Your task to perform on an android device: Open Google Maps Image 0: 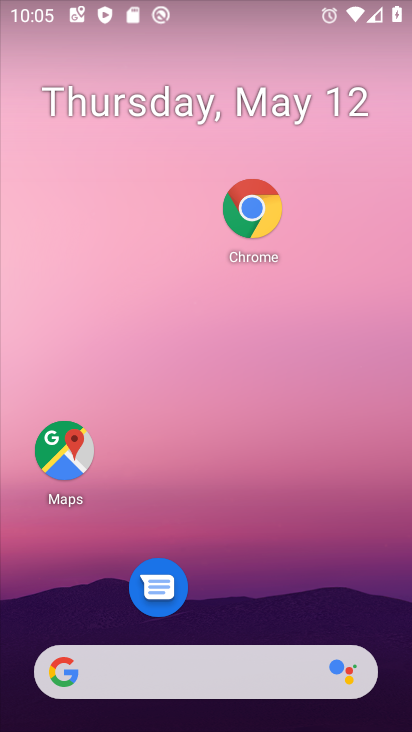
Step 0: drag from (279, 510) to (282, 328)
Your task to perform on an android device: Open Google Maps Image 1: 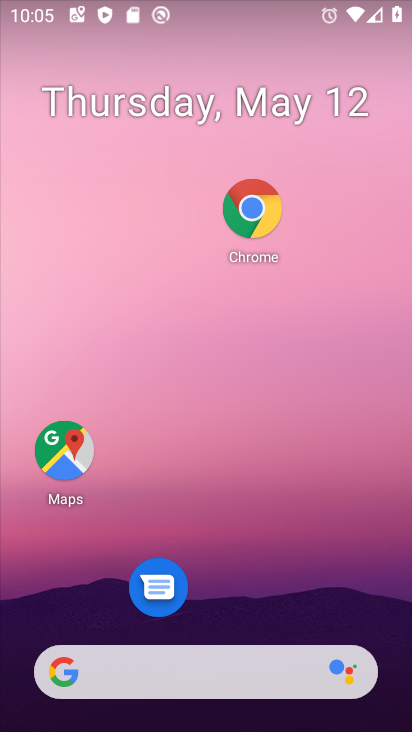
Step 1: drag from (264, 430) to (314, 155)
Your task to perform on an android device: Open Google Maps Image 2: 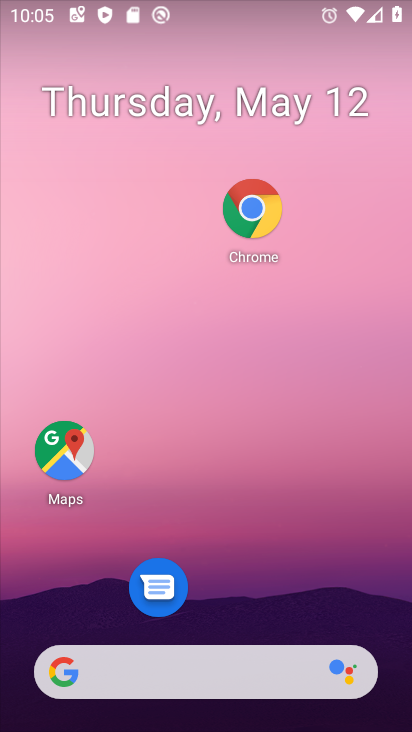
Step 2: drag from (287, 583) to (310, 66)
Your task to perform on an android device: Open Google Maps Image 3: 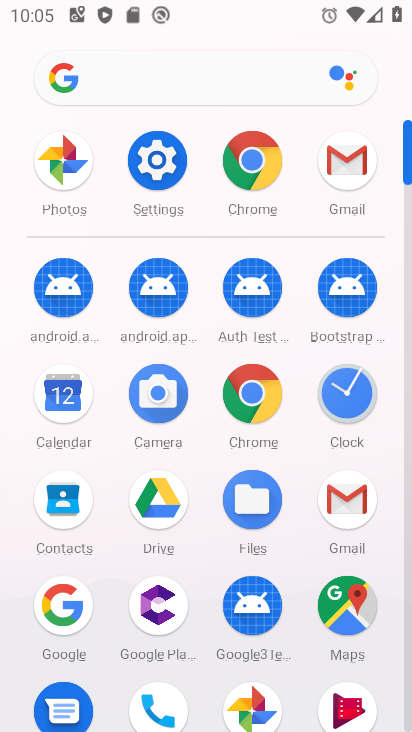
Step 3: click (336, 595)
Your task to perform on an android device: Open Google Maps Image 4: 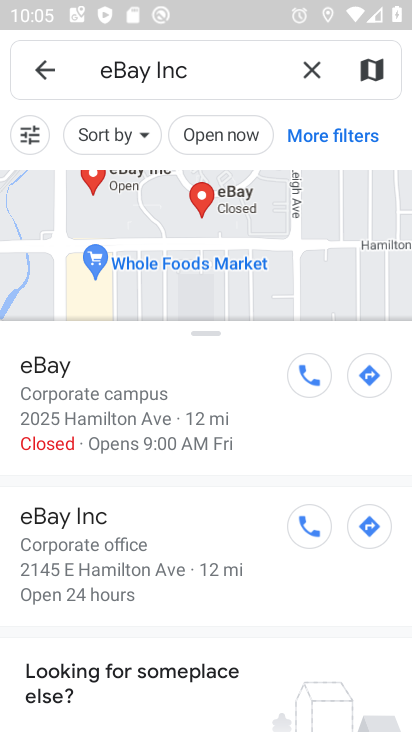
Step 4: click (313, 71)
Your task to perform on an android device: Open Google Maps Image 5: 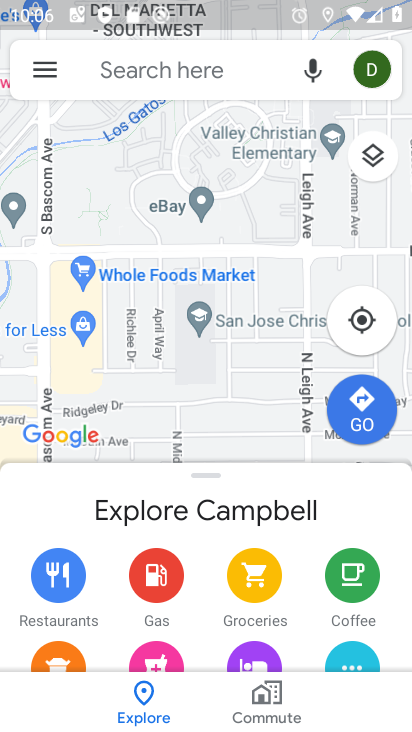
Step 5: task complete